Your task to perform on an android device: Open the web browser Image 0: 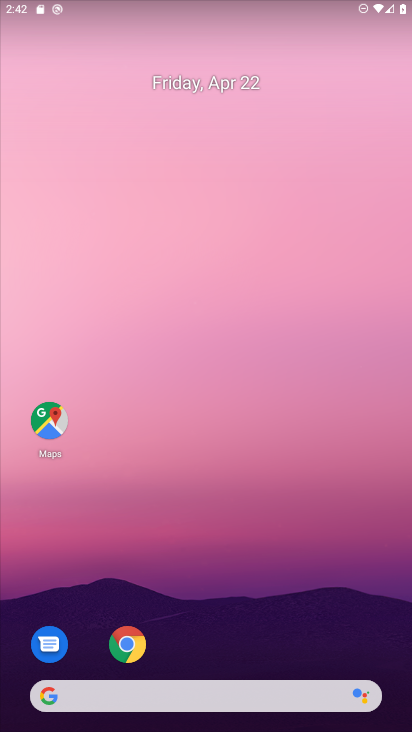
Step 0: drag from (287, 602) to (287, 63)
Your task to perform on an android device: Open the web browser Image 1: 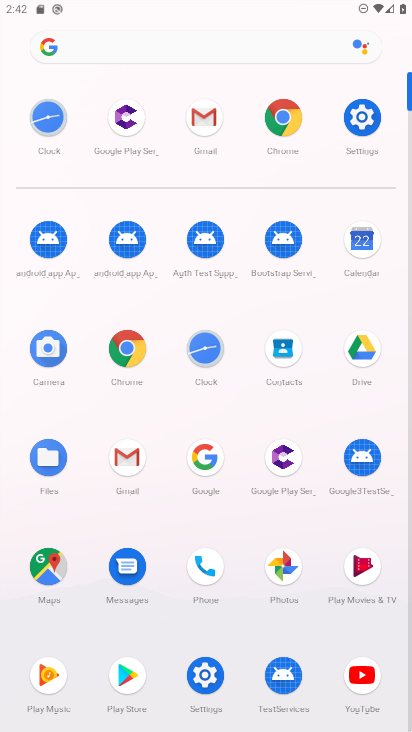
Step 1: click (125, 355)
Your task to perform on an android device: Open the web browser Image 2: 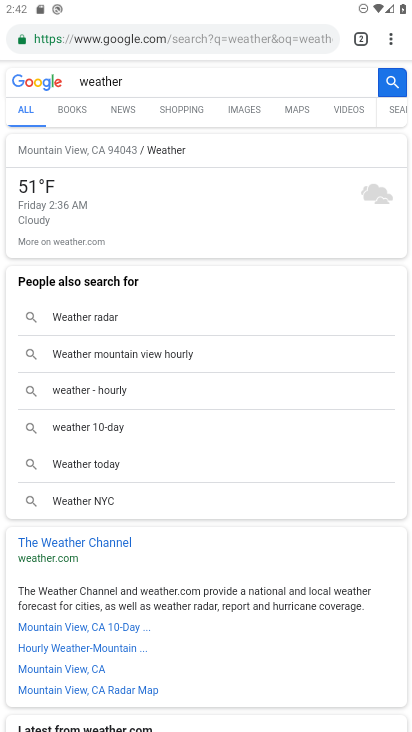
Step 2: task complete